Your task to perform on an android device: change the clock display to digital Image 0: 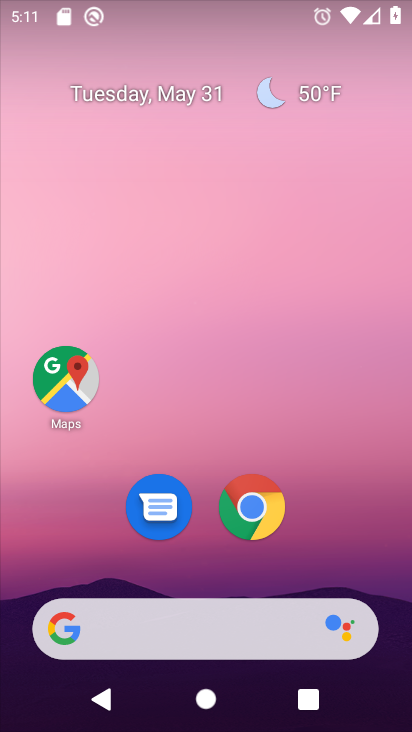
Step 0: drag from (303, 539) to (292, 51)
Your task to perform on an android device: change the clock display to digital Image 1: 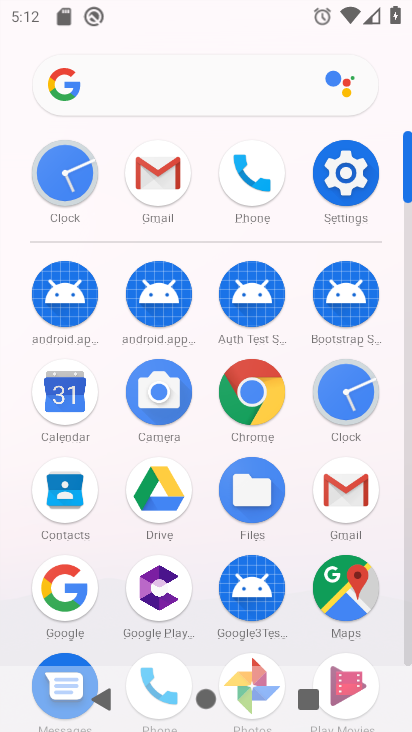
Step 1: click (346, 385)
Your task to perform on an android device: change the clock display to digital Image 2: 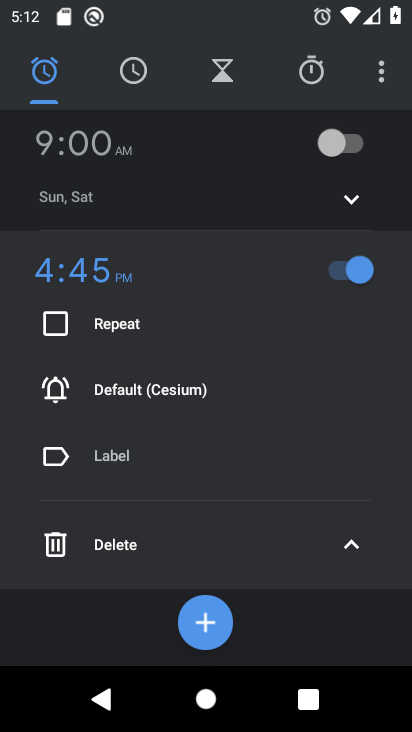
Step 2: click (384, 79)
Your task to perform on an android device: change the clock display to digital Image 3: 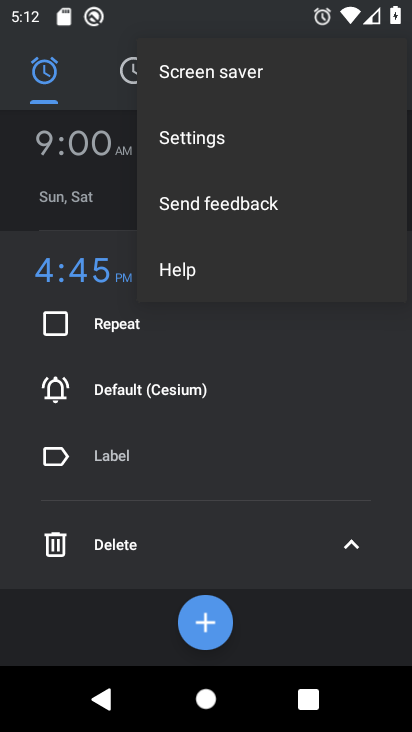
Step 3: click (250, 142)
Your task to perform on an android device: change the clock display to digital Image 4: 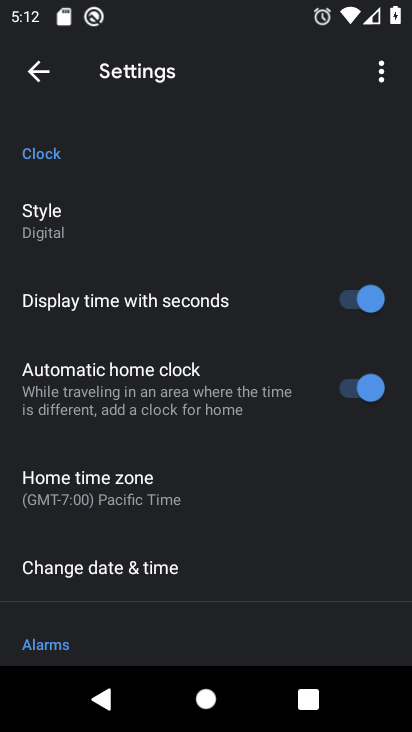
Step 4: click (42, 70)
Your task to perform on an android device: change the clock display to digital Image 5: 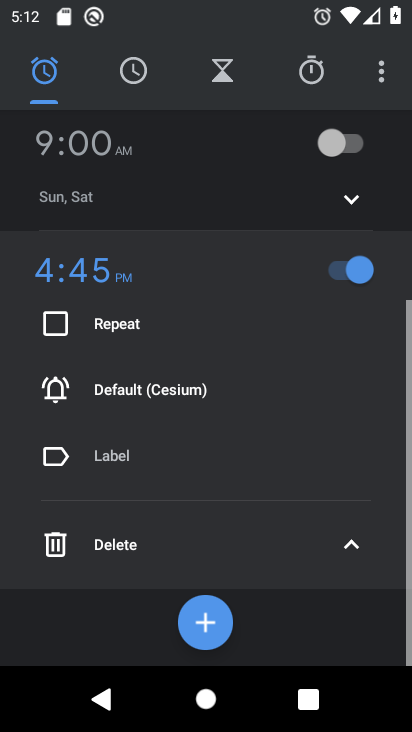
Step 5: click (130, 64)
Your task to perform on an android device: change the clock display to digital Image 6: 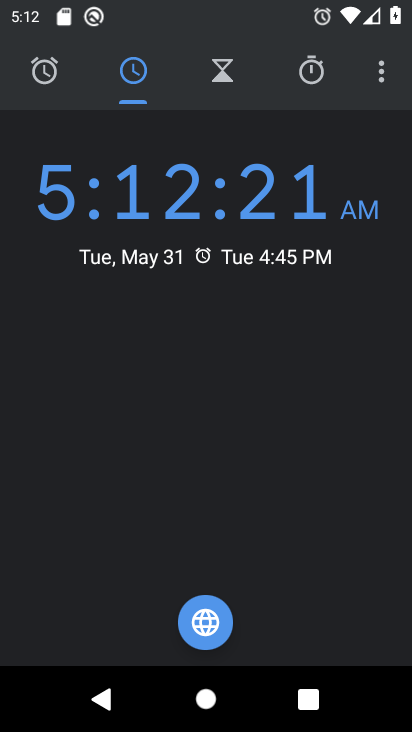
Step 6: task complete